Your task to perform on an android device: turn pop-ups off in chrome Image 0: 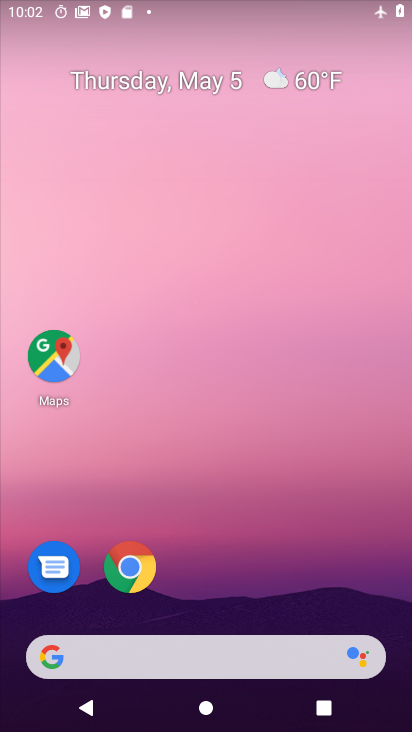
Step 0: drag from (332, 512) to (348, 18)
Your task to perform on an android device: turn pop-ups off in chrome Image 1: 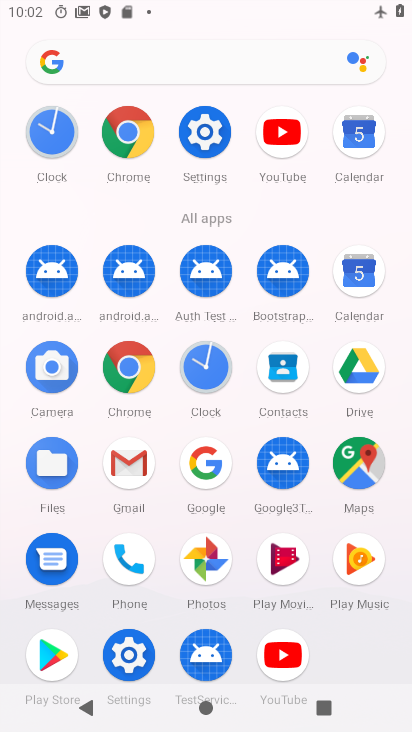
Step 1: click (127, 140)
Your task to perform on an android device: turn pop-ups off in chrome Image 2: 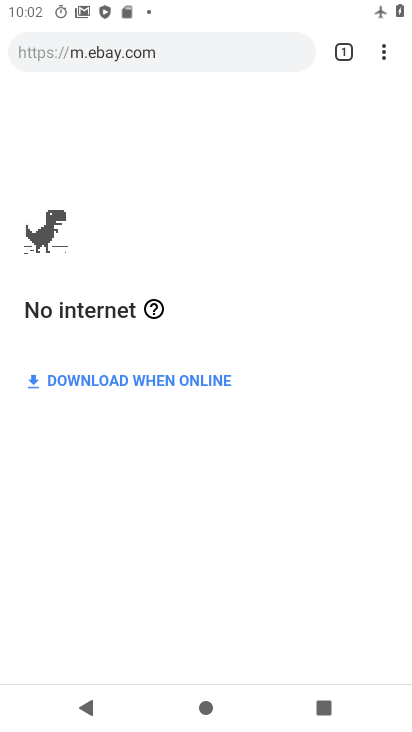
Step 2: drag from (389, 43) to (218, 569)
Your task to perform on an android device: turn pop-ups off in chrome Image 3: 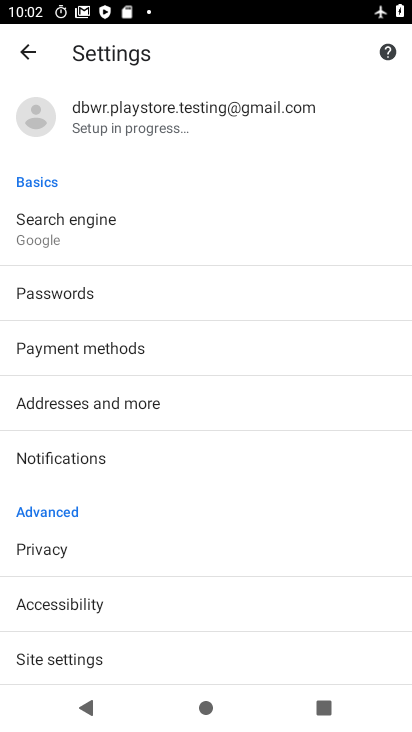
Step 3: drag from (139, 553) to (206, 178)
Your task to perform on an android device: turn pop-ups off in chrome Image 4: 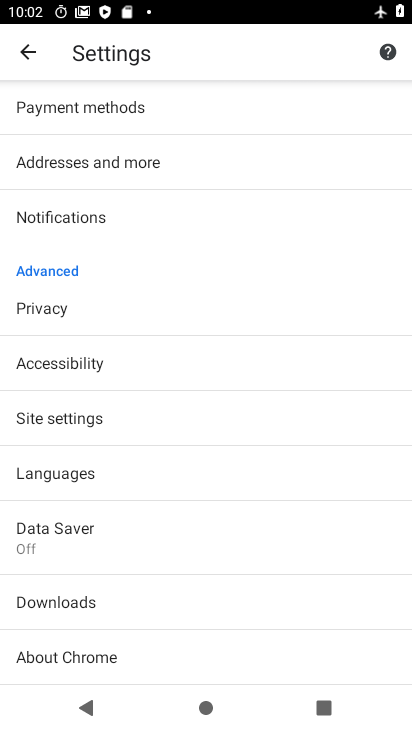
Step 4: click (55, 419)
Your task to perform on an android device: turn pop-ups off in chrome Image 5: 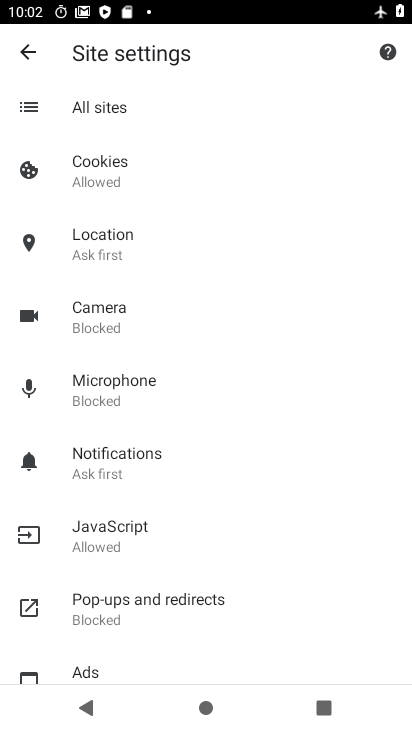
Step 5: click (186, 610)
Your task to perform on an android device: turn pop-ups off in chrome Image 6: 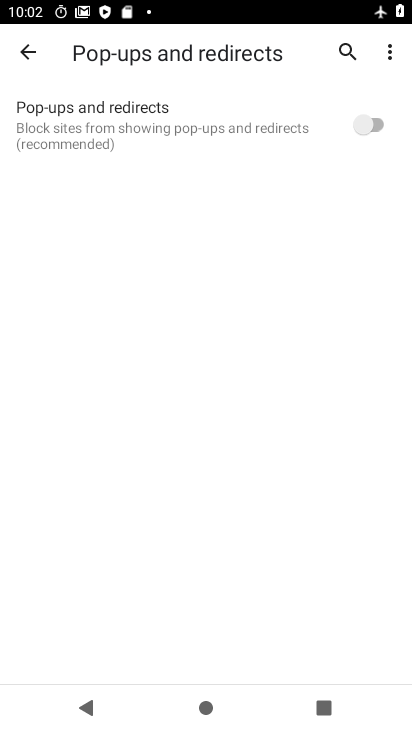
Step 6: task complete